Your task to perform on an android device: turn off javascript in the chrome app Image 0: 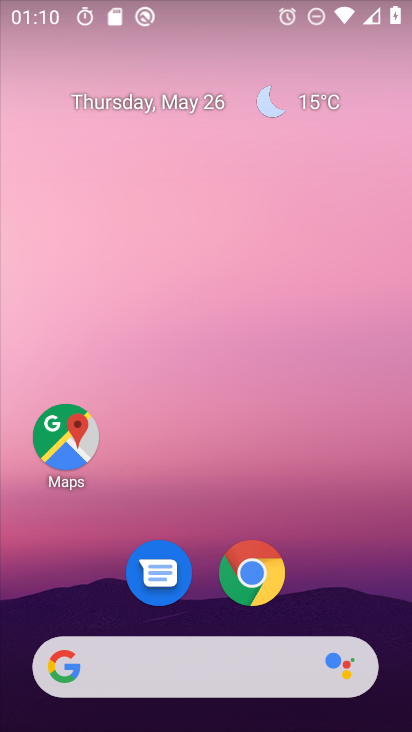
Step 0: click (256, 560)
Your task to perform on an android device: turn off javascript in the chrome app Image 1: 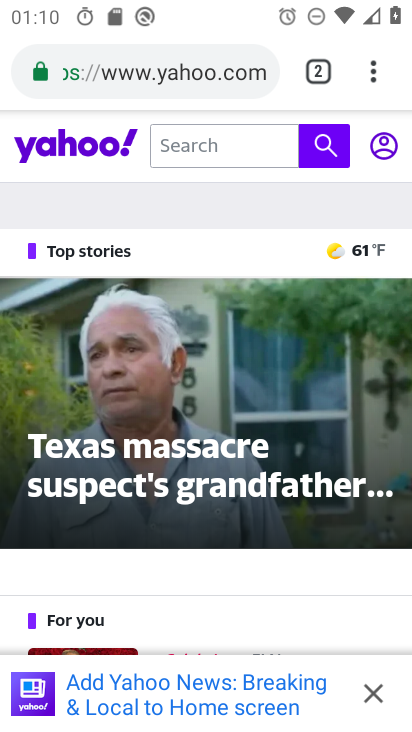
Step 1: click (372, 70)
Your task to perform on an android device: turn off javascript in the chrome app Image 2: 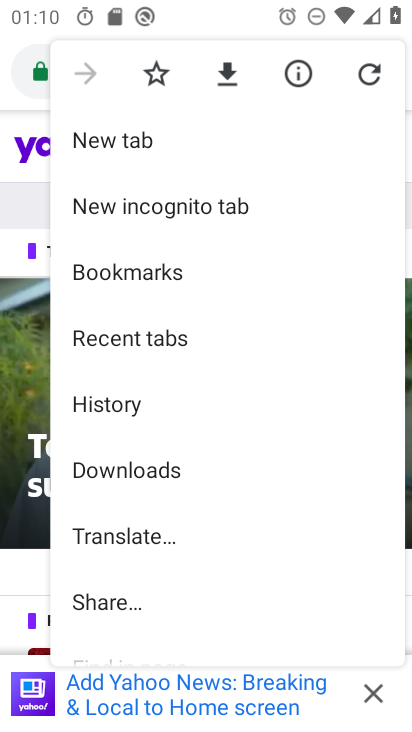
Step 2: drag from (165, 510) to (144, 243)
Your task to perform on an android device: turn off javascript in the chrome app Image 3: 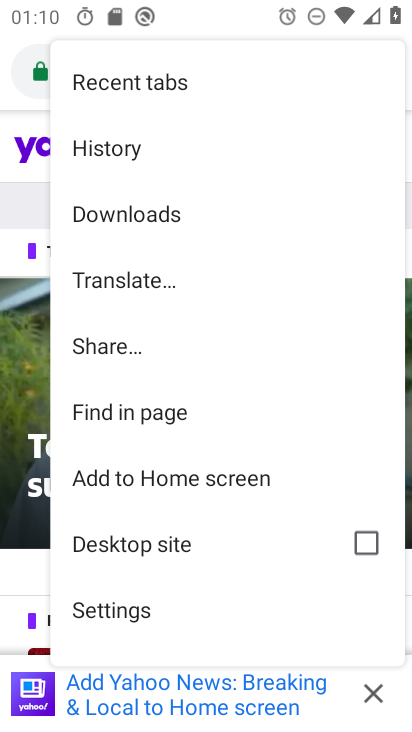
Step 3: drag from (169, 525) to (159, 215)
Your task to perform on an android device: turn off javascript in the chrome app Image 4: 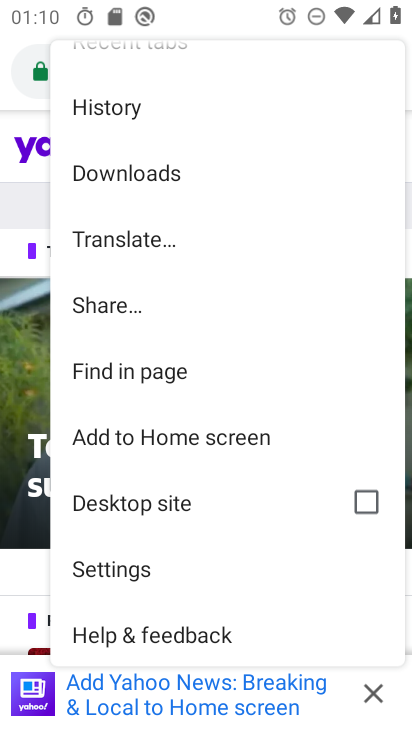
Step 4: click (115, 573)
Your task to perform on an android device: turn off javascript in the chrome app Image 5: 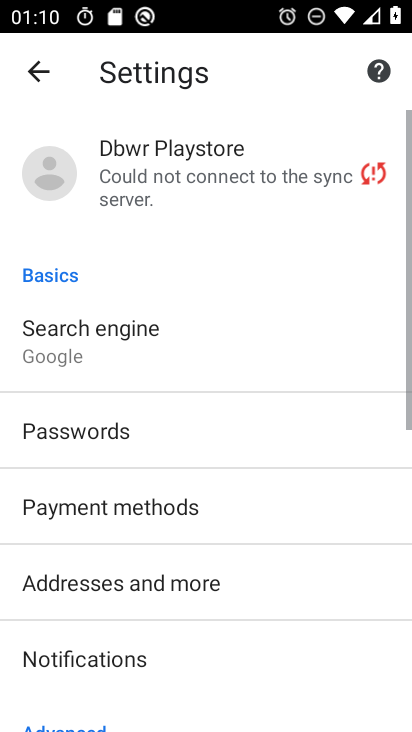
Step 5: drag from (166, 619) to (151, 8)
Your task to perform on an android device: turn off javascript in the chrome app Image 6: 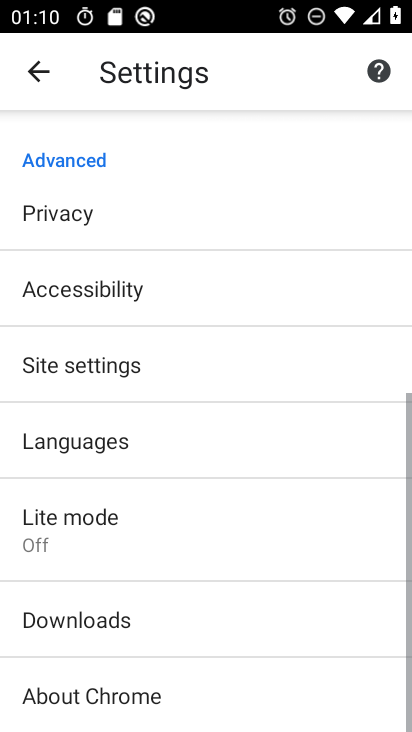
Step 6: click (99, 358)
Your task to perform on an android device: turn off javascript in the chrome app Image 7: 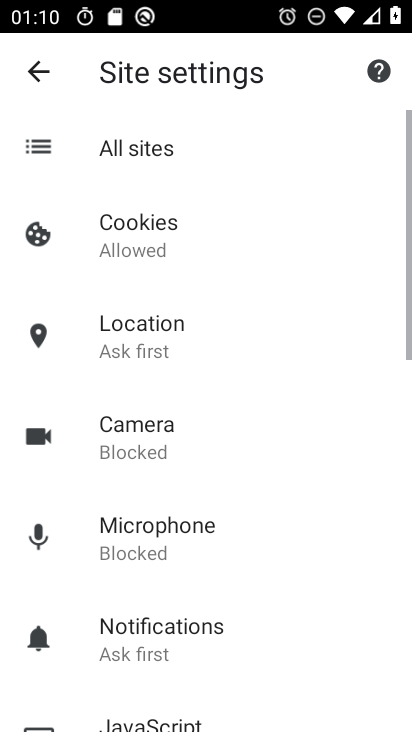
Step 7: drag from (204, 565) to (180, 246)
Your task to perform on an android device: turn off javascript in the chrome app Image 8: 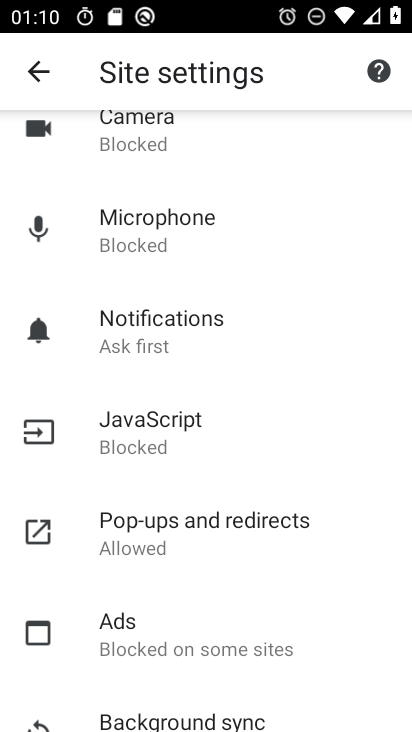
Step 8: click (145, 435)
Your task to perform on an android device: turn off javascript in the chrome app Image 9: 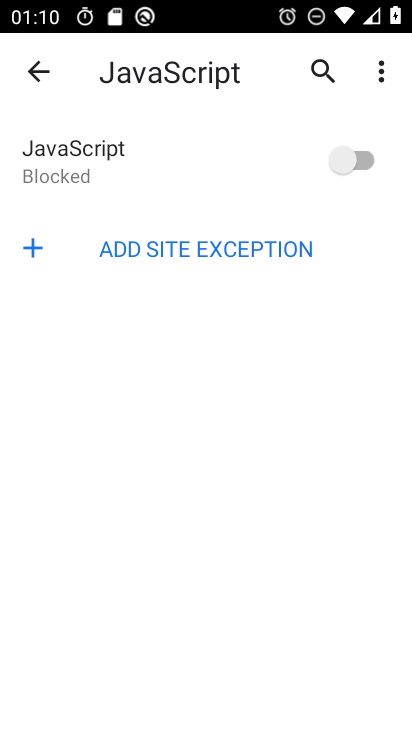
Step 9: task complete